Your task to perform on an android device: turn on improve location accuracy Image 0: 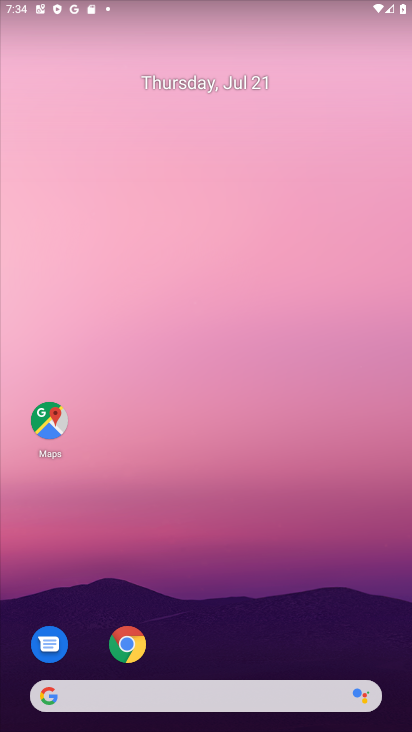
Step 0: drag from (244, 582) to (314, 228)
Your task to perform on an android device: turn on improve location accuracy Image 1: 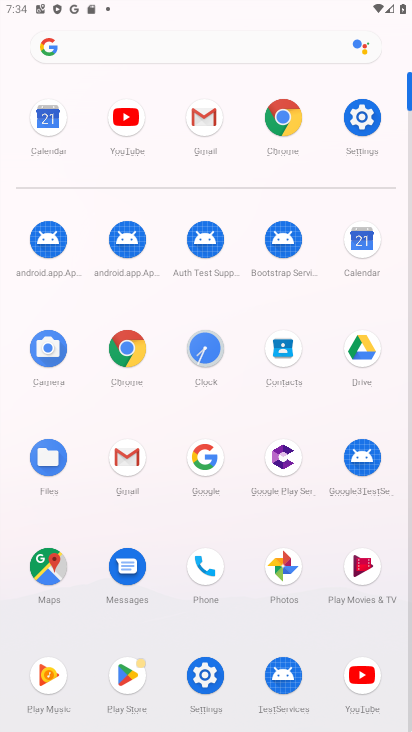
Step 1: click (208, 678)
Your task to perform on an android device: turn on improve location accuracy Image 2: 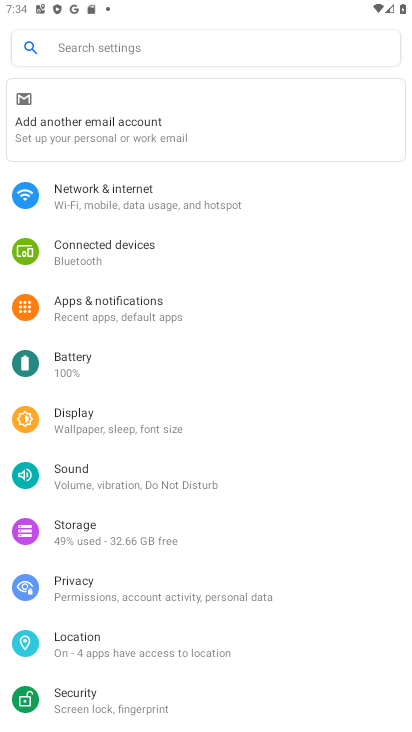
Step 2: click (91, 635)
Your task to perform on an android device: turn on improve location accuracy Image 3: 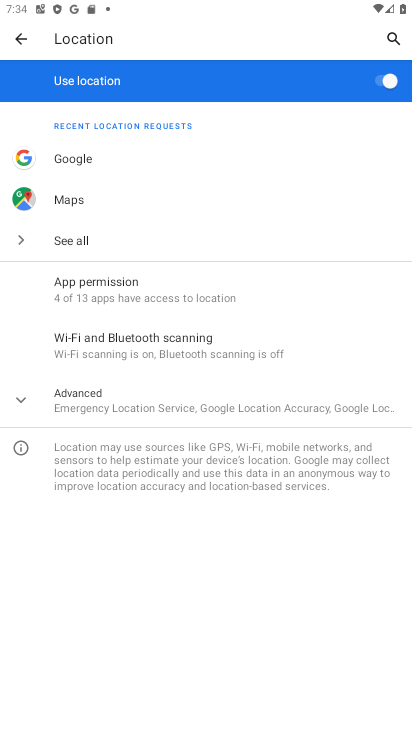
Step 3: task complete